Your task to perform on an android device: Go to Android settings Image 0: 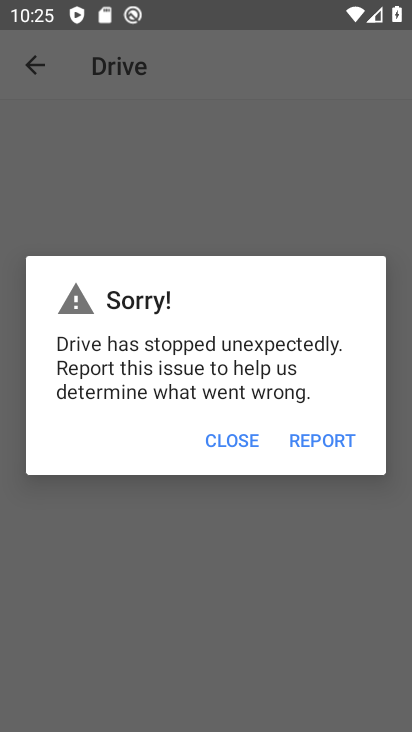
Step 0: click (238, 446)
Your task to perform on an android device: Go to Android settings Image 1: 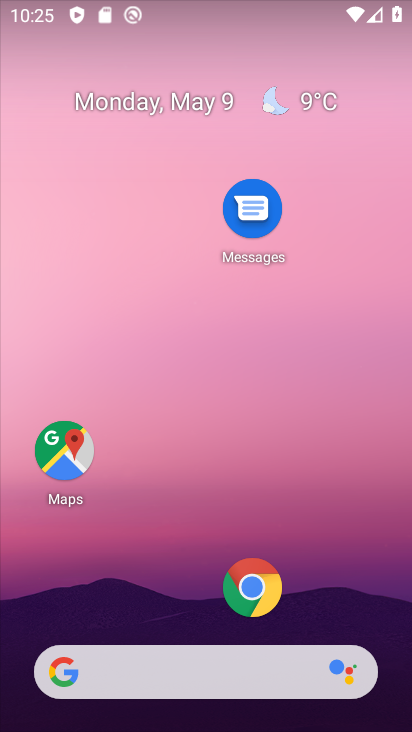
Step 1: drag from (196, 601) to (212, 103)
Your task to perform on an android device: Go to Android settings Image 2: 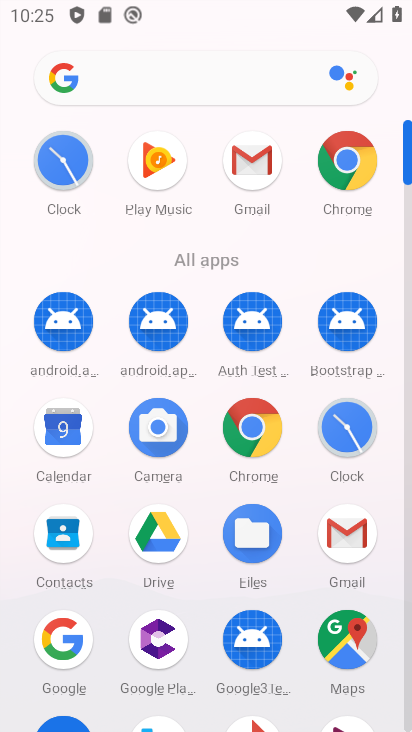
Step 2: drag from (202, 651) to (206, 269)
Your task to perform on an android device: Go to Android settings Image 3: 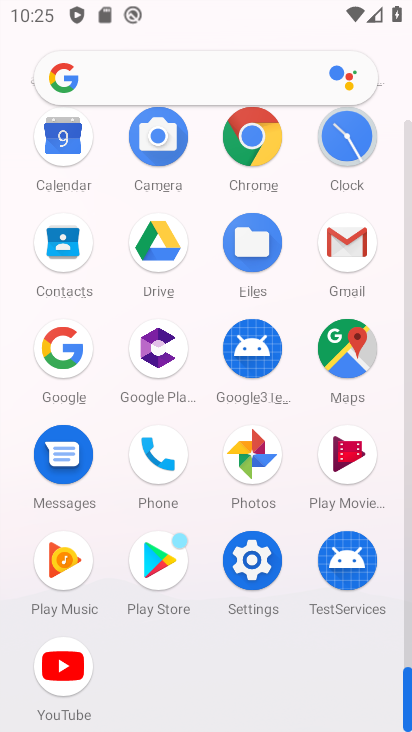
Step 3: click (246, 565)
Your task to perform on an android device: Go to Android settings Image 4: 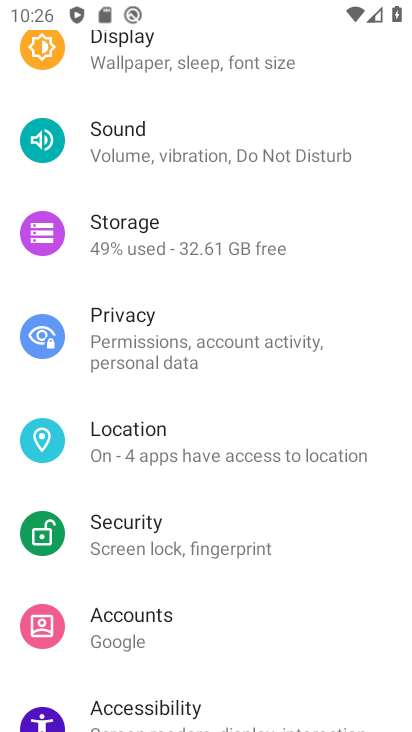
Step 4: drag from (289, 185) to (289, 98)
Your task to perform on an android device: Go to Android settings Image 5: 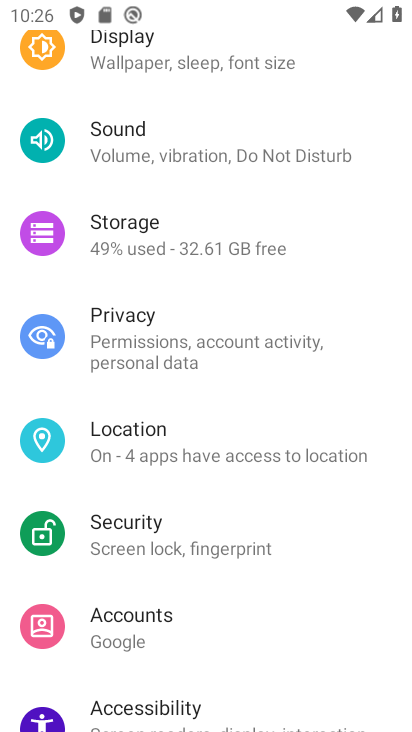
Step 5: drag from (265, 588) to (294, 160)
Your task to perform on an android device: Go to Android settings Image 6: 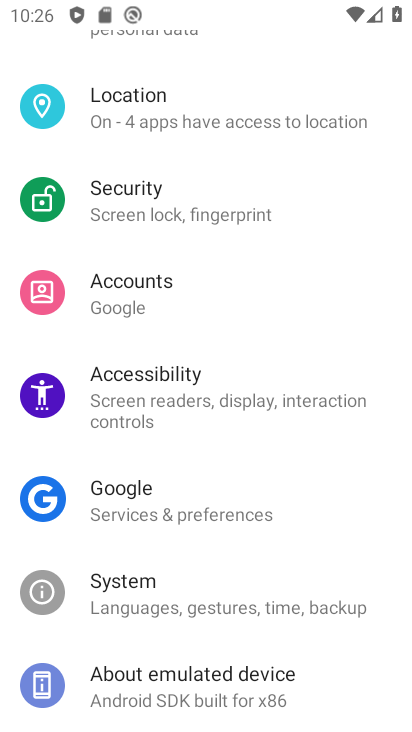
Step 6: drag from (236, 620) to (253, 170)
Your task to perform on an android device: Go to Android settings Image 7: 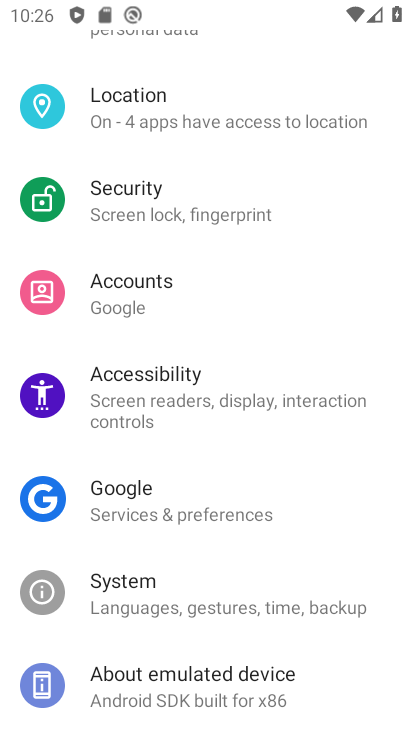
Step 7: click (187, 694)
Your task to perform on an android device: Go to Android settings Image 8: 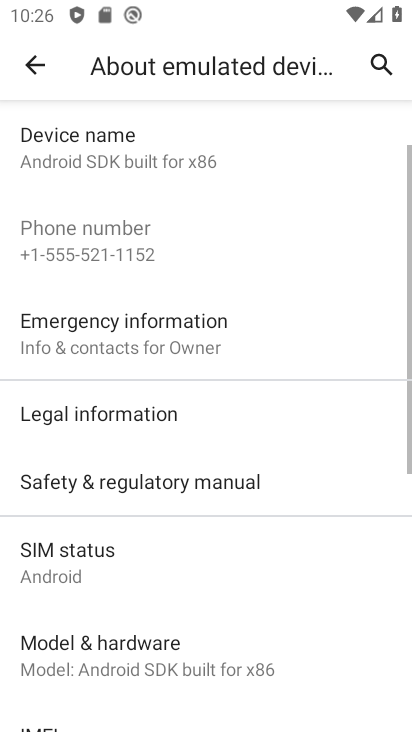
Step 8: task complete